Your task to perform on an android device: Turn on the flashlight Image 0: 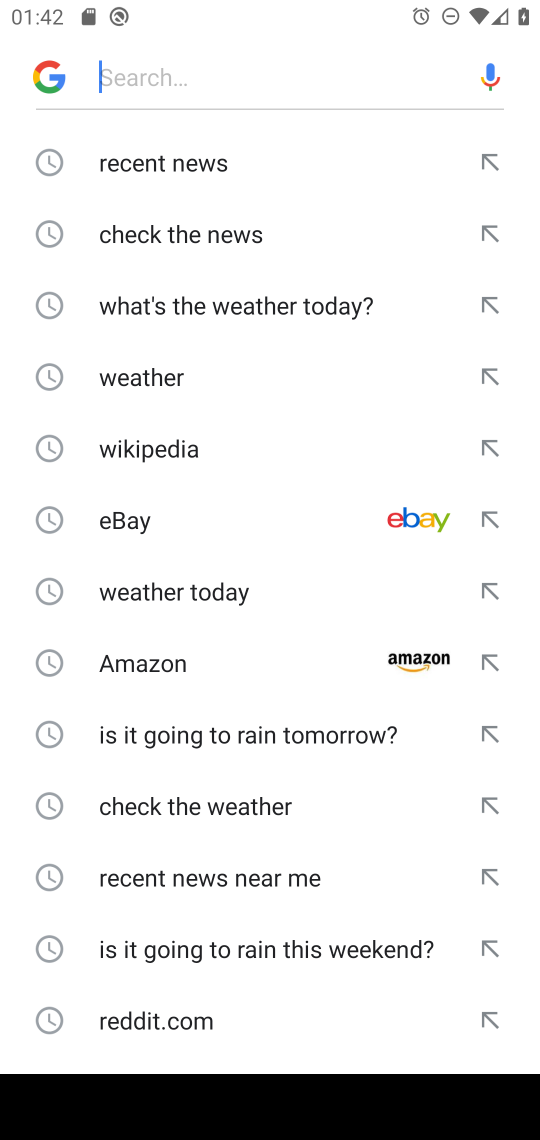
Step 0: press home button
Your task to perform on an android device: Turn on the flashlight Image 1: 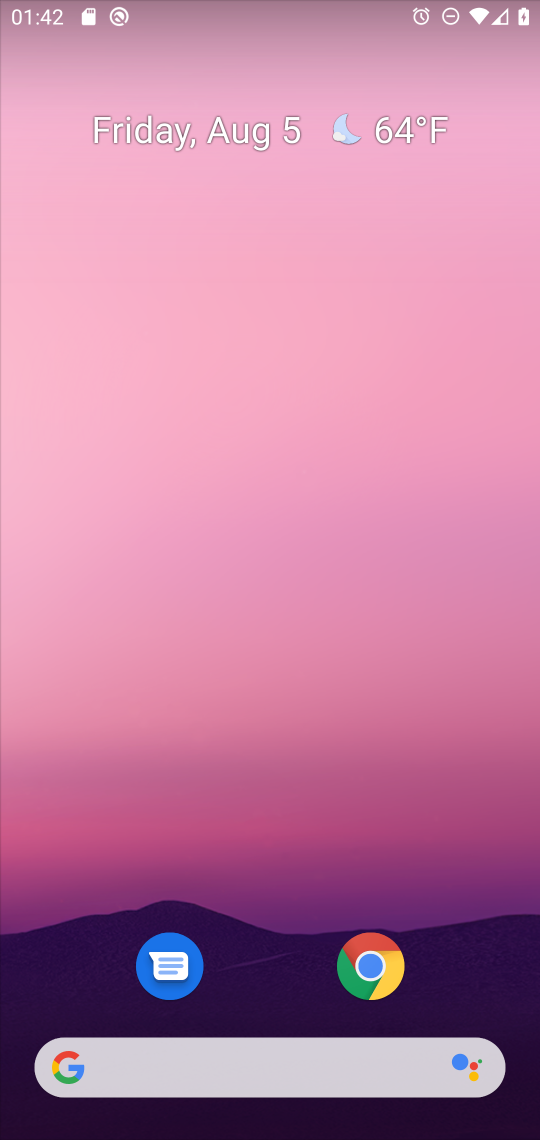
Step 1: drag from (315, 710) to (358, 45)
Your task to perform on an android device: Turn on the flashlight Image 2: 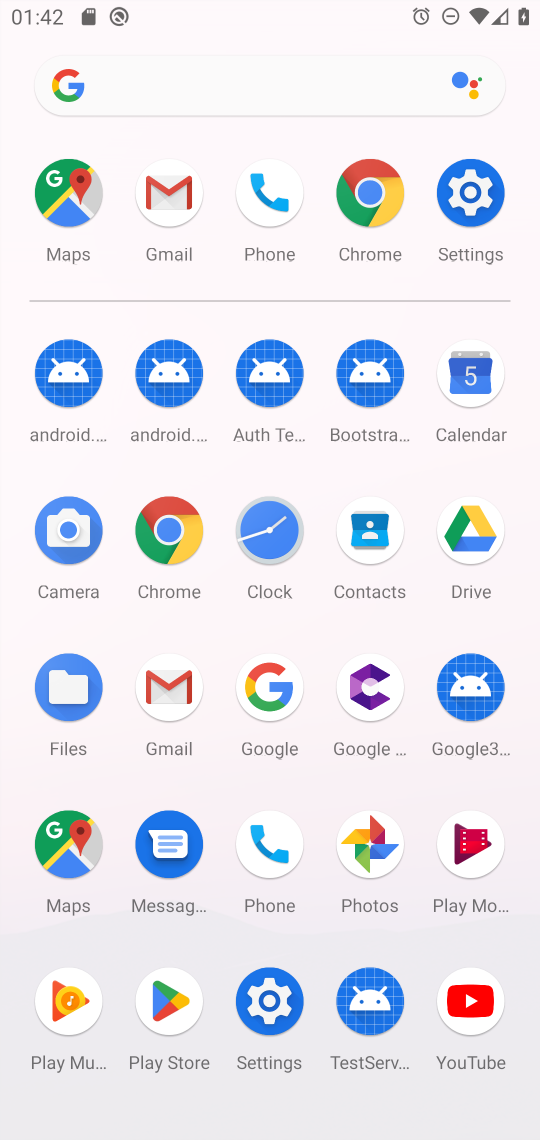
Step 2: click (471, 187)
Your task to perform on an android device: Turn on the flashlight Image 3: 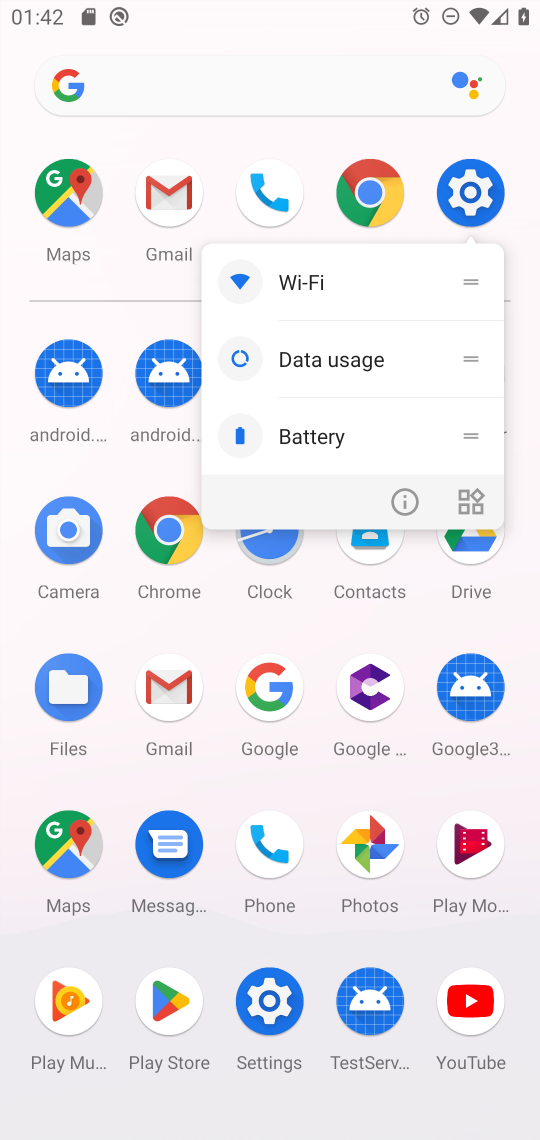
Step 3: click (478, 193)
Your task to perform on an android device: Turn on the flashlight Image 4: 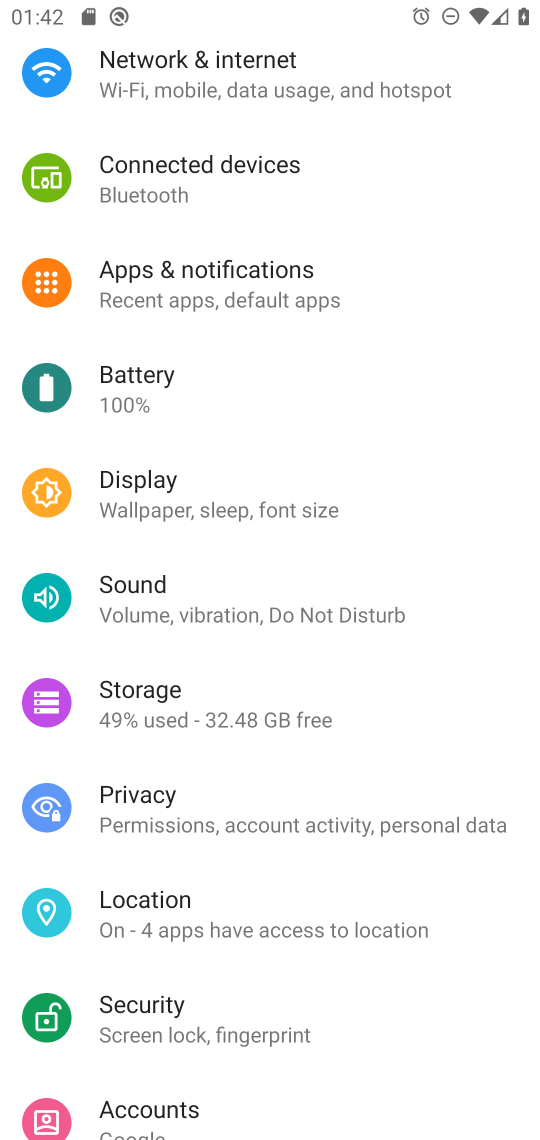
Step 4: drag from (222, 204) to (157, 892)
Your task to perform on an android device: Turn on the flashlight Image 5: 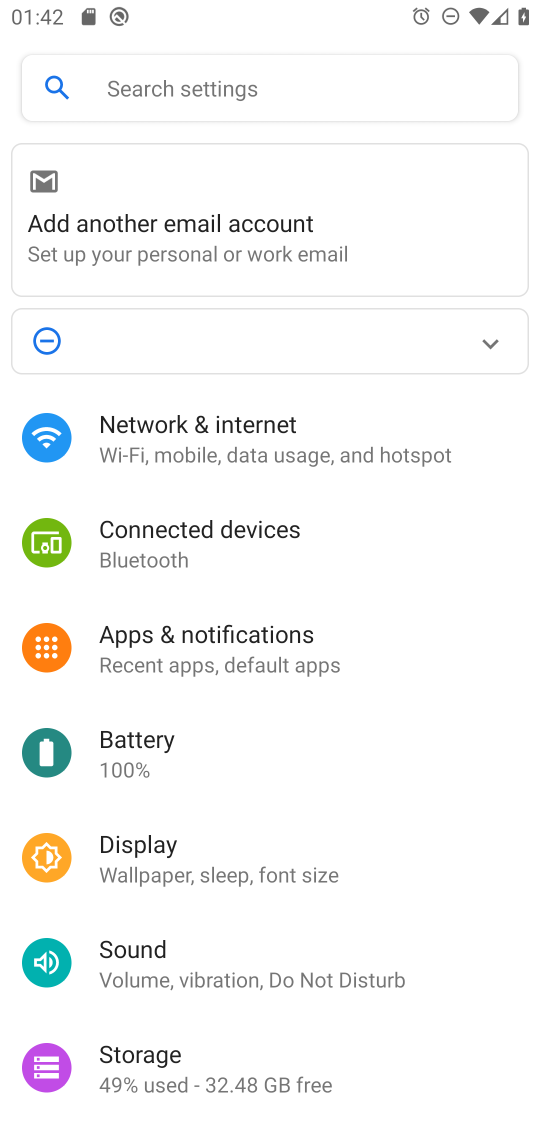
Step 5: click (328, 93)
Your task to perform on an android device: Turn on the flashlight Image 6: 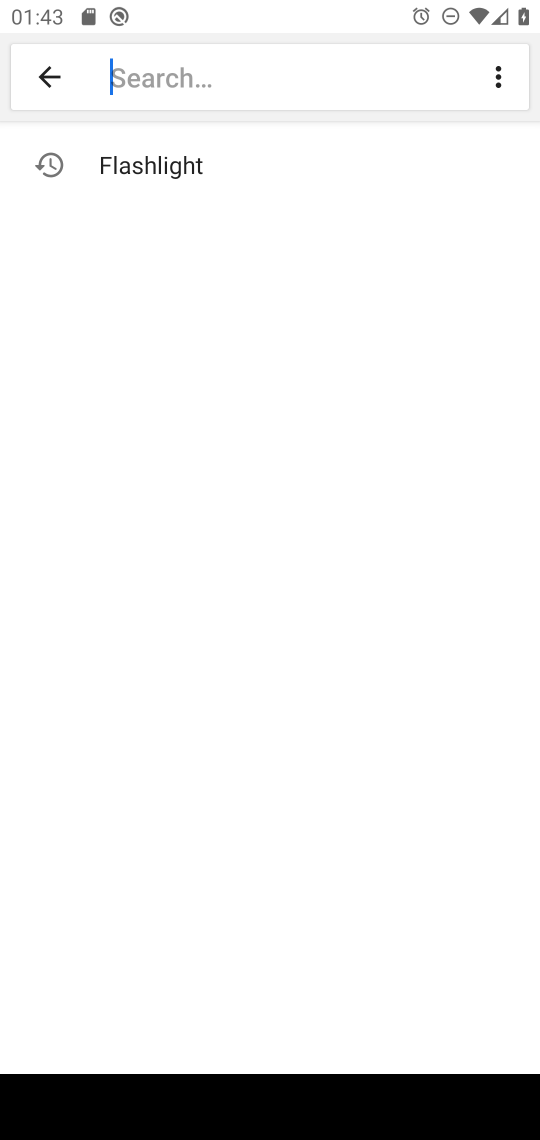
Step 6: type "Flashlight"
Your task to perform on an android device: Turn on the flashlight Image 7: 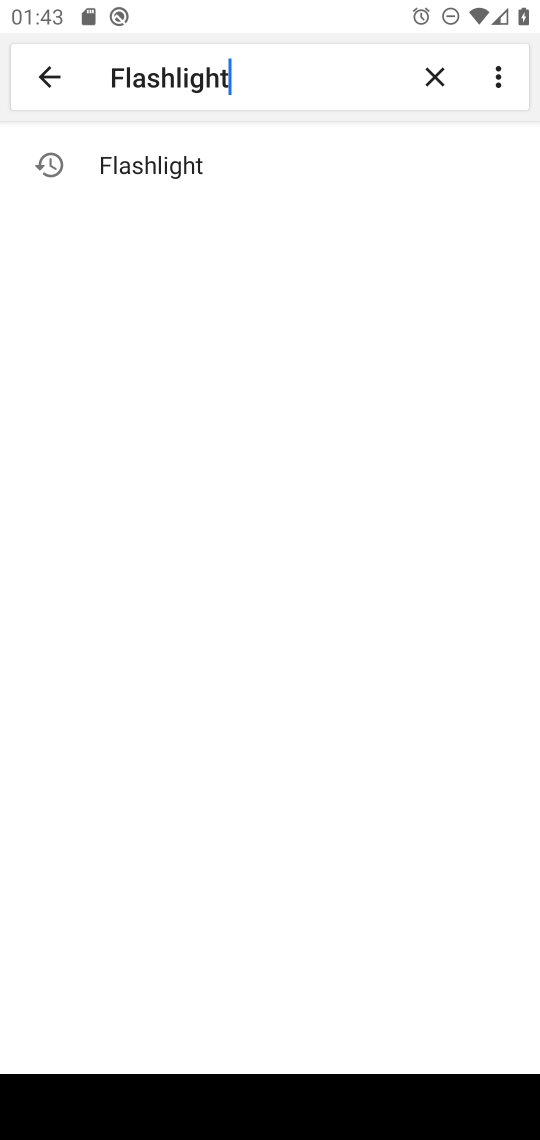
Step 7: click (172, 159)
Your task to perform on an android device: Turn on the flashlight Image 8: 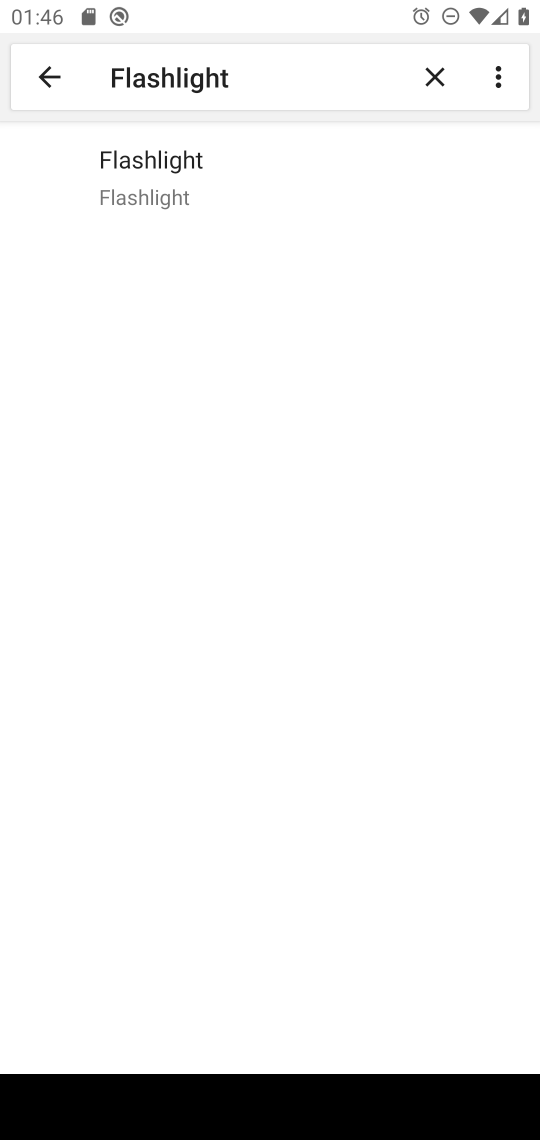
Step 8: task complete